Your task to perform on an android device: find snoozed emails in the gmail app Image 0: 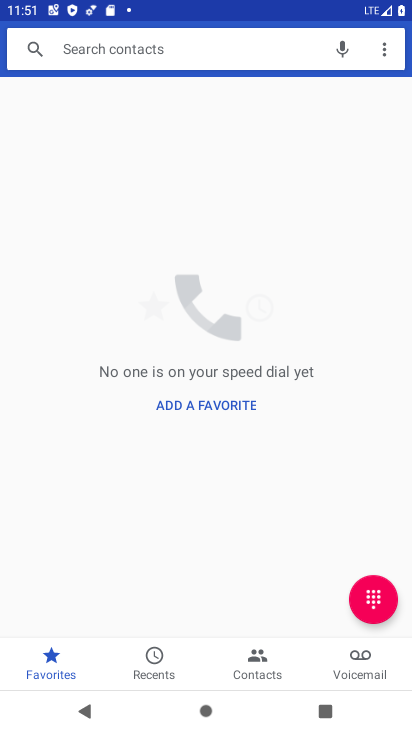
Step 0: press home button
Your task to perform on an android device: find snoozed emails in the gmail app Image 1: 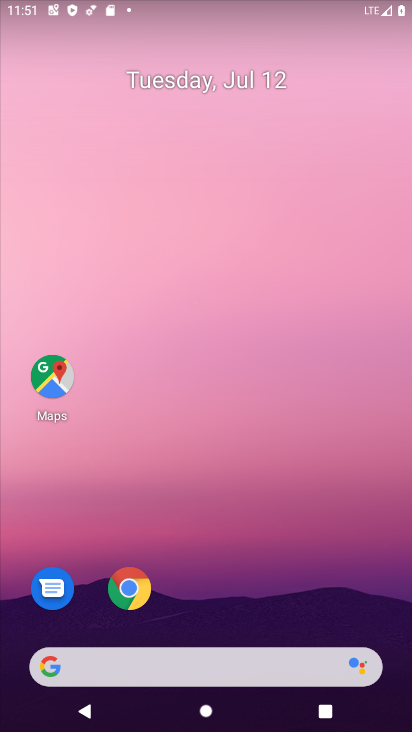
Step 1: drag from (394, 588) to (375, 210)
Your task to perform on an android device: find snoozed emails in the gmail app Image 2: 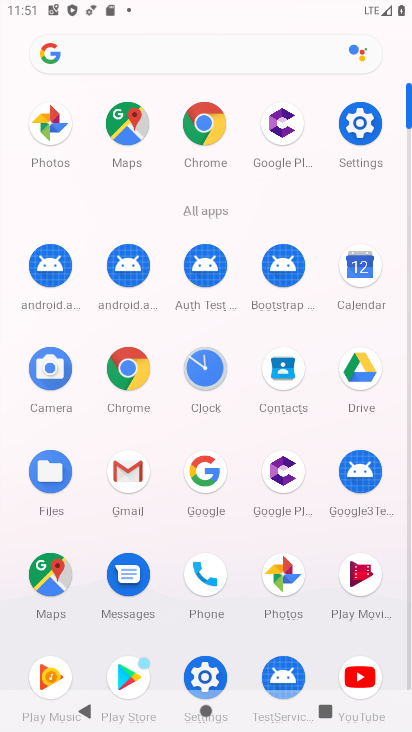
Step 2: click (123, 473)
Your task to perform on an android device: find snoozed emails in the gmail app Image 3: 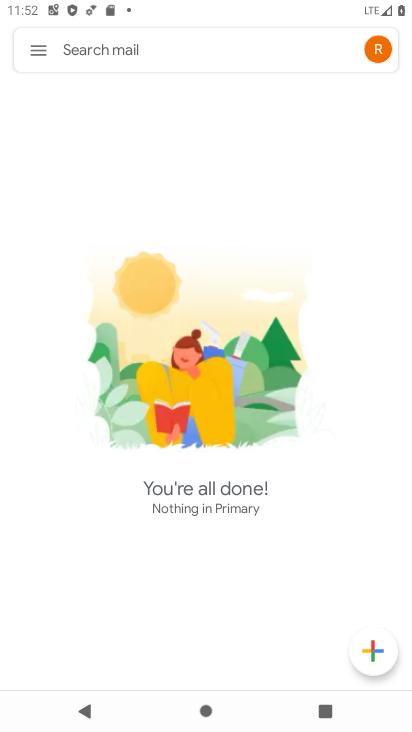
Step 3: click (38, 50)
Your task to perform on an android device: find snoozed emails in the gmail app Image 4: 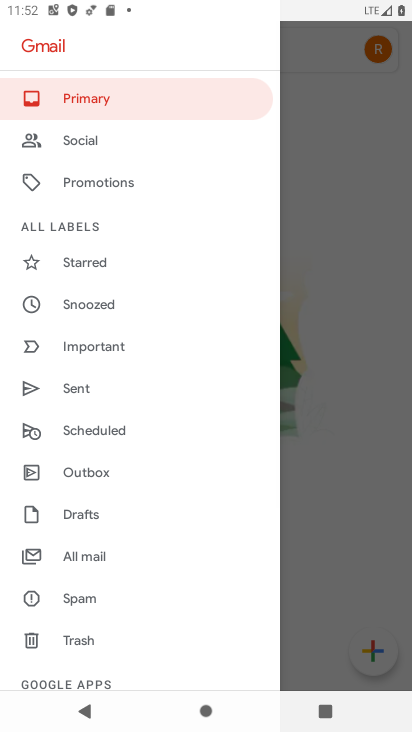
Step 4: click (96, 301)
Your task to perform on an android device: find snoozed emails in the gmail app Image 5: 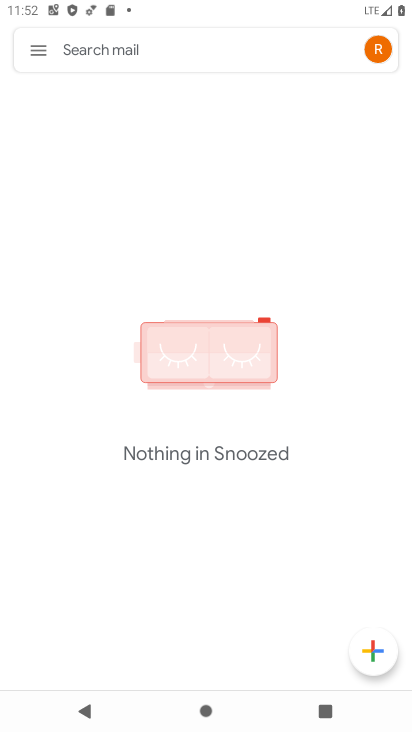
Step 5: task complete